Your task to perform on an android device: Go to Google maps Image 0: 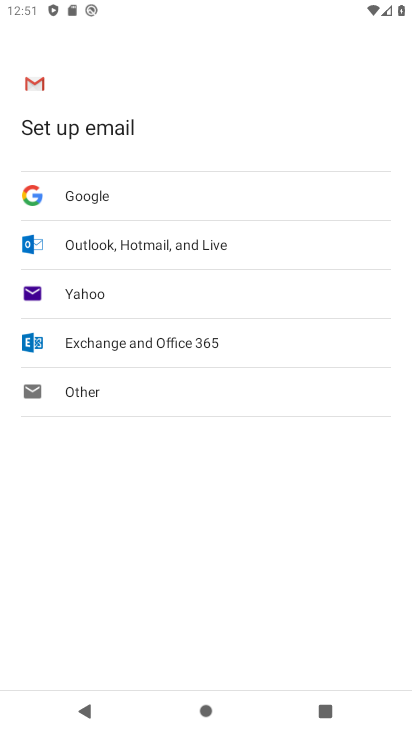
Step 0: press home button
Your task to perform on an android device: Go to Google maps Image 1: 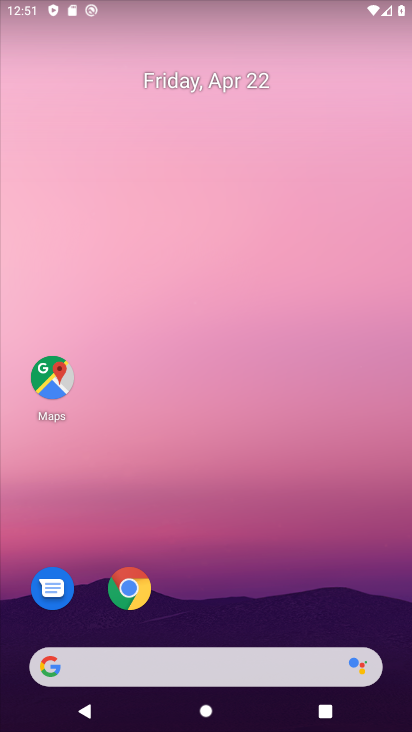
Step 1: drag from (372, 597) to (372, 89)
Your task to perform on an android device: Go to Google maps Image 2: 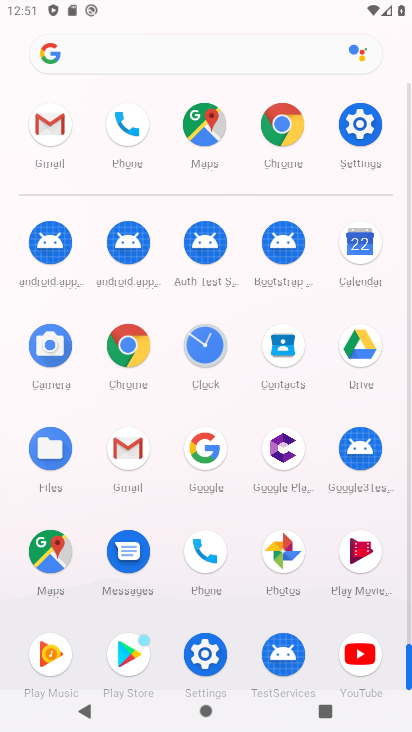
Step 2: click (46, 558)
Your task to perform on an android device: Go to Google maps Image 3: 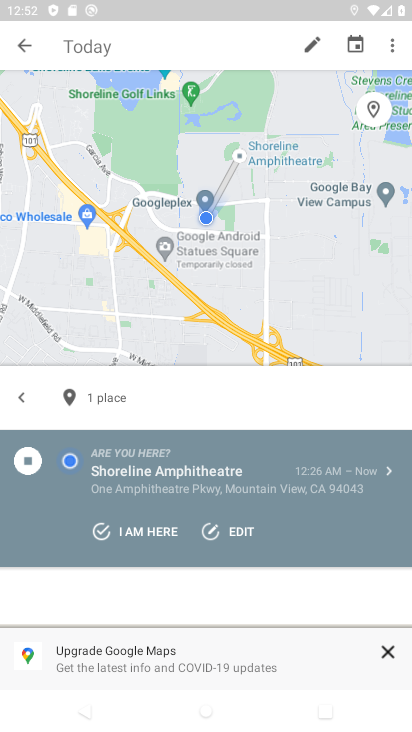
Step 3: task complete